Your task to perform on an android device: change the clock display to digital Image 0: 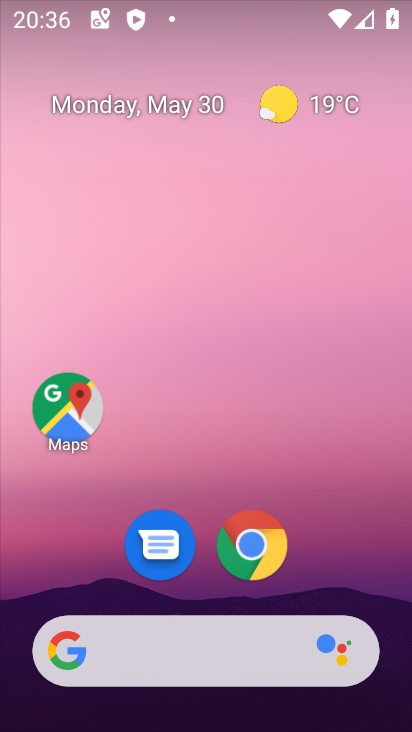
Step 0: drag from (310, 563) to (301, 254)
Your task to perform on an android device: change the clock display to digital Image 1: 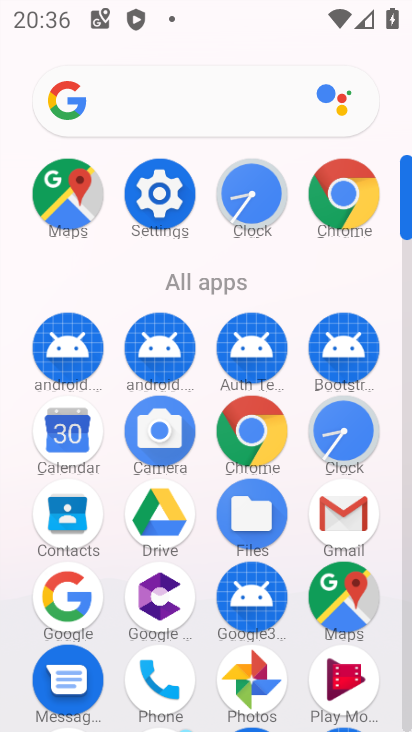
Step 1: click (263, 196)
Your task to perform on an android device: change the clock display to digital Image 2: 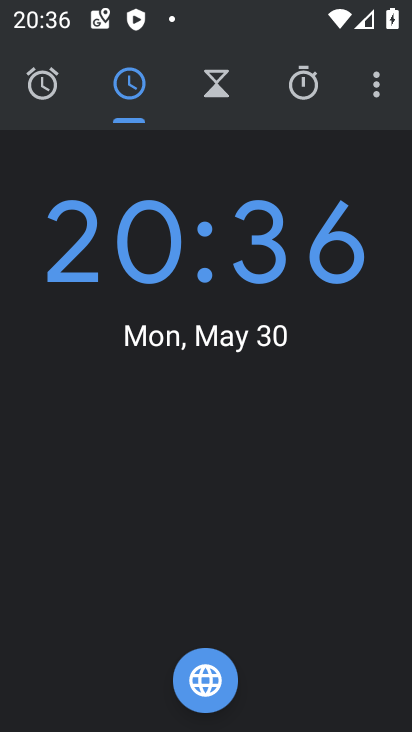
Step 2: click (385, 84)
Your task to perform on an android device: change the clock display to digital Image 3: 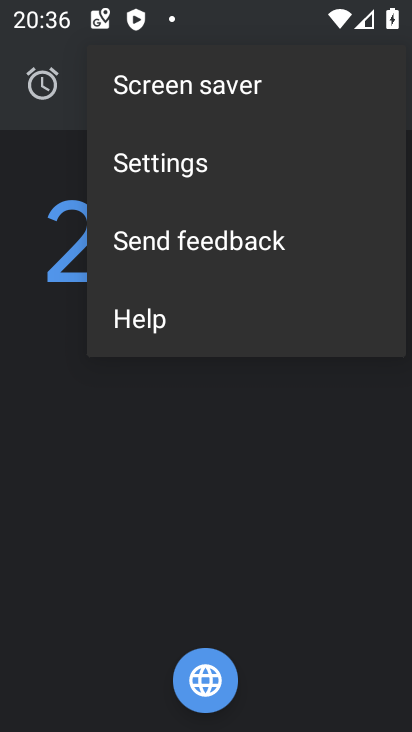
Step 3: click (181, 156)
Your task to perform on an android device: change the clock display to digital Image 4: 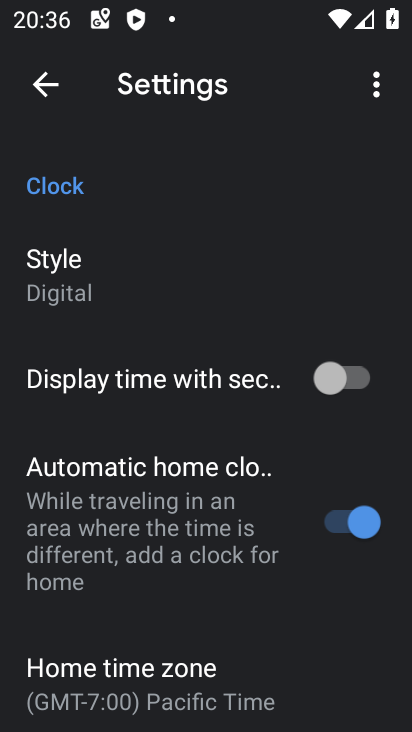
Step 4: click (44, 284)
Your task to perform on an android device: change the clock display to digital Image 5: 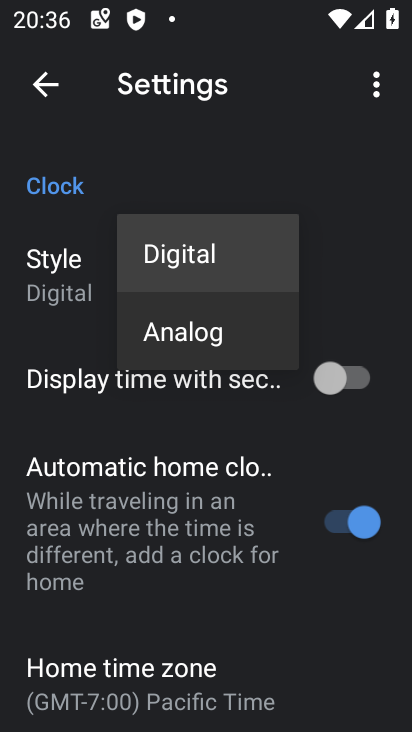
Step 5: click (157, 260)
Your task to perform on an android device: change the clock display to digital Image 6: 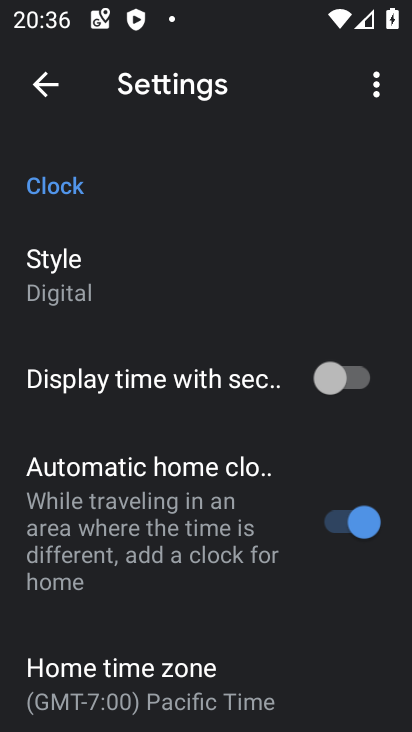
Step 6: task complete